Your task to perform on an android device: Open calendar and show me the third week of next month Image 0: 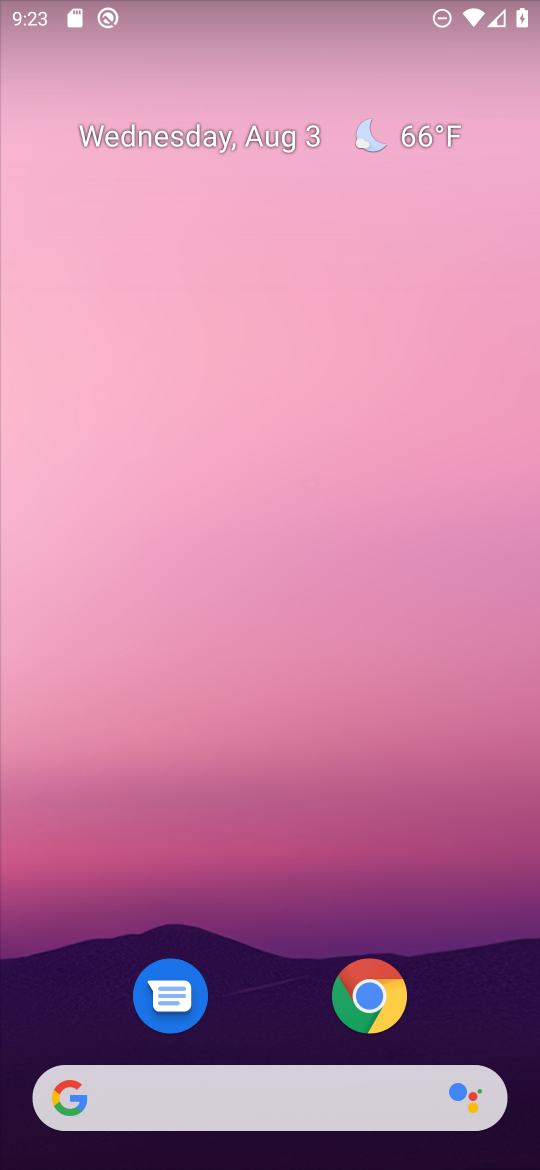
Step 0: drag from (315, 866) to (300, 24)
Your task to perform on an android device: Open calendar and show me the third week of next month Image 1: 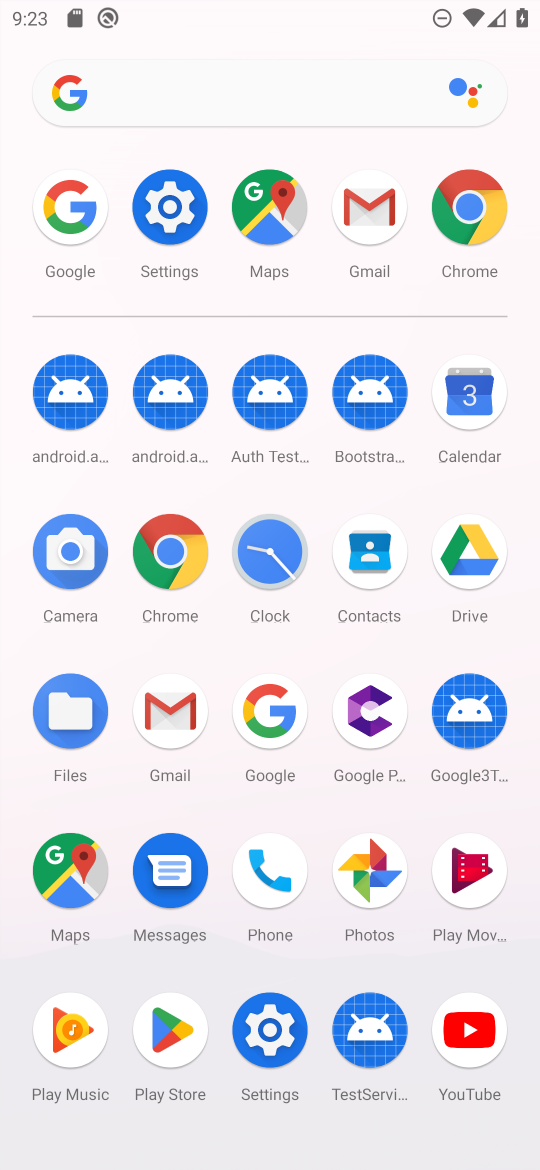
Step 1: click (463, 382)
Your task to perform on an android device: Open calendar and show me the third week of next month Image 2: 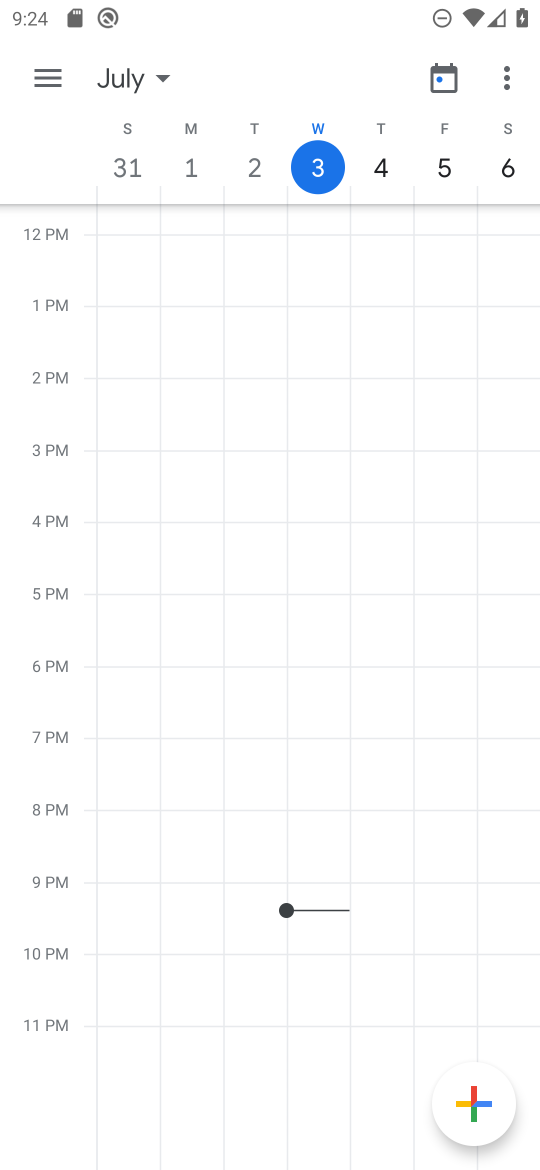
Step 2: task complete